Your task to perform on an android device: make emails show in primary in the gmail app Image 0: 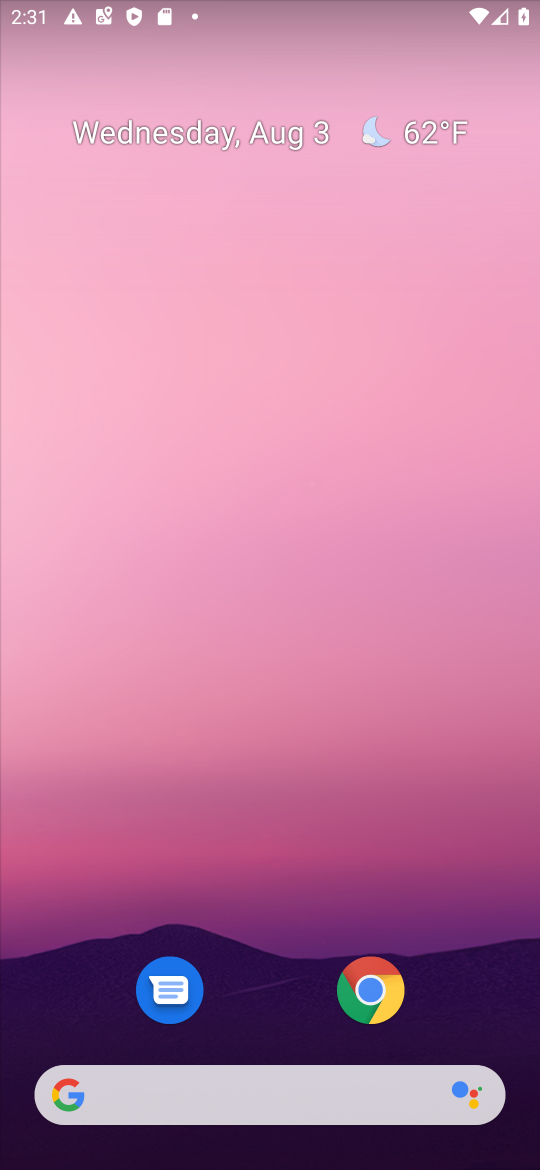
Step 0: press home button
Your task to perform on an android device: make emails show in primary in the gmail app Image 1: 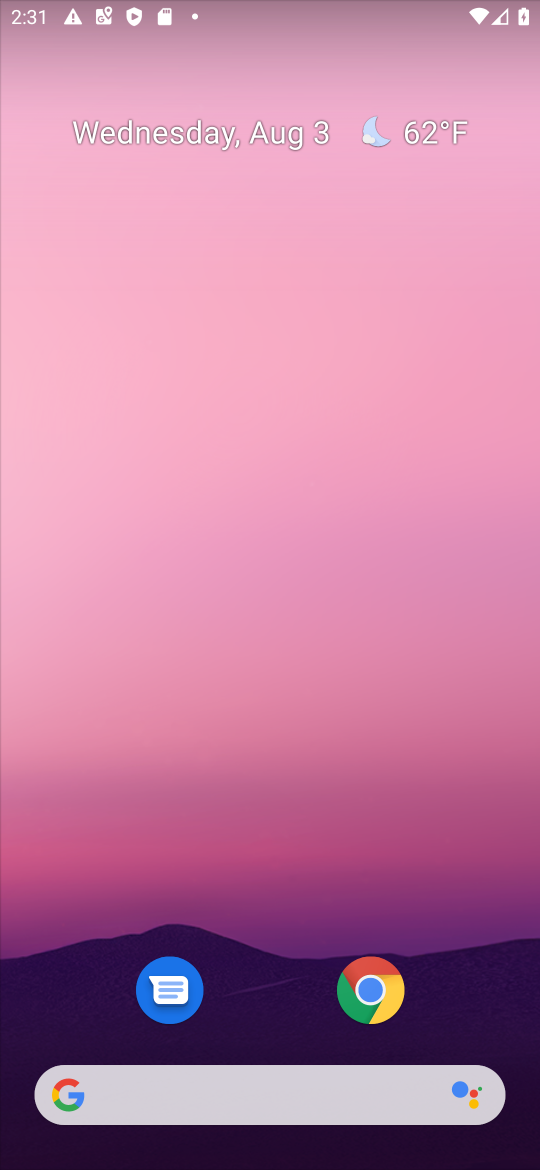
Step 1: drag from (244, 797) to (294, 198)
Your task to perform on an android device: make emails show in primary in the gmail app Image 2: 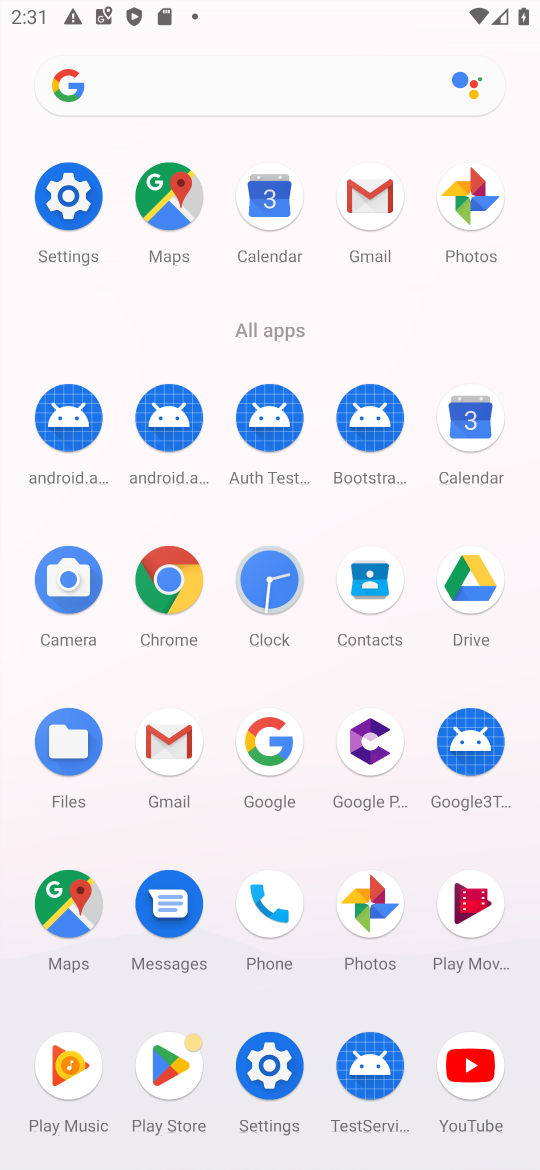
Step 2: click (364, 199)
Your task to perform on an android device: make emails show in primary in the gmail app Image 3: 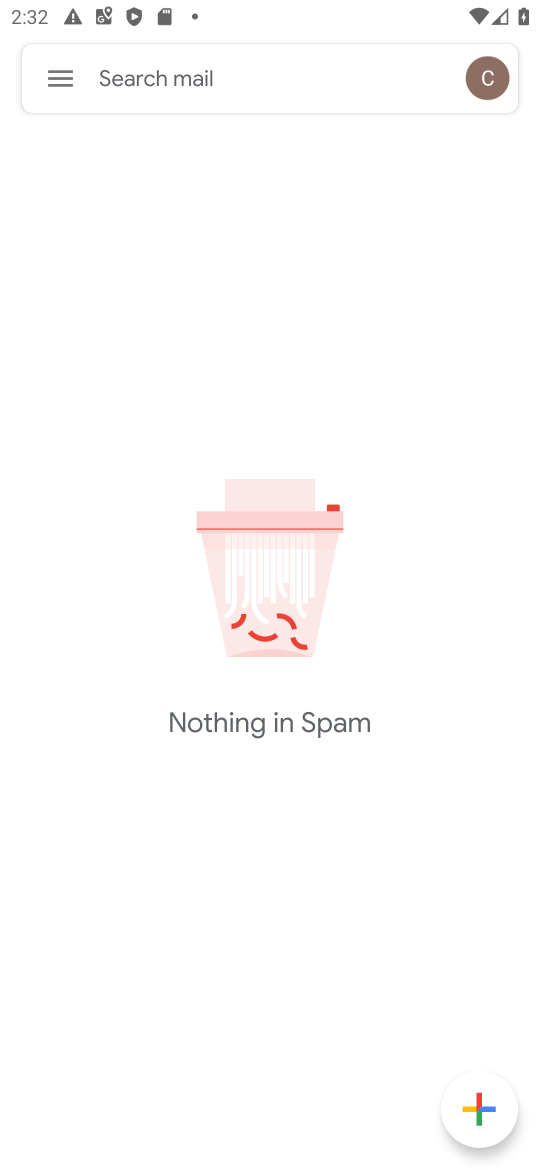
Step 3: click (53, 86)
Your task to perform on an android device: make emails show in primary in the gmail app Image 4: 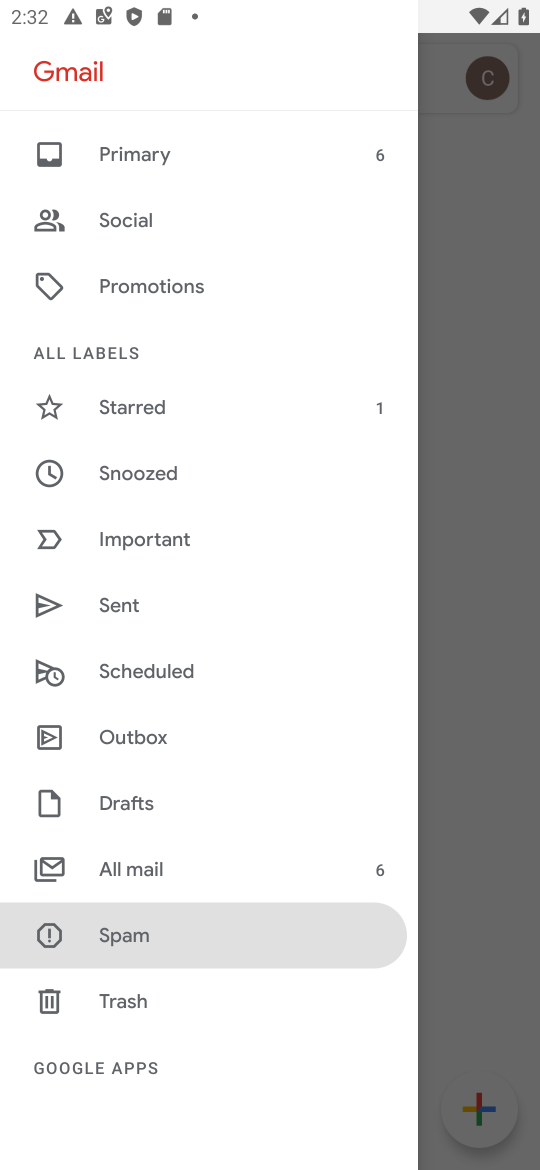
Step 4: click (145, 171)
Your task to perform on an android device: make emails show in primary in the gmail app Image 5: 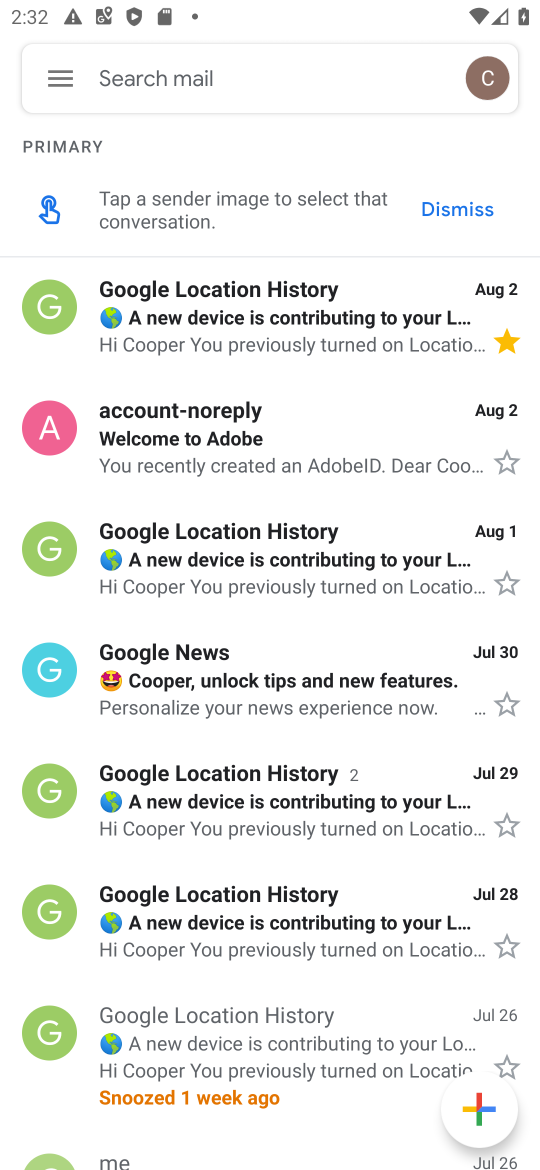
Step 5: task complete